Your task to perform on an android device: Open Yahoo.com Image 0: 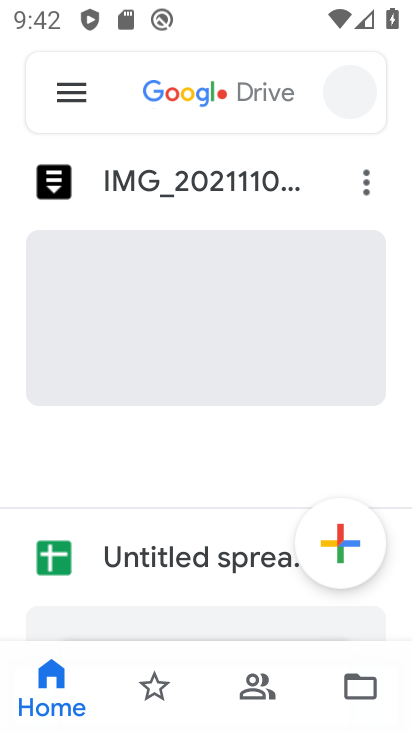
Step 0: press home button
Your task to perform on an android device: Open Yahoo.com Image 1: 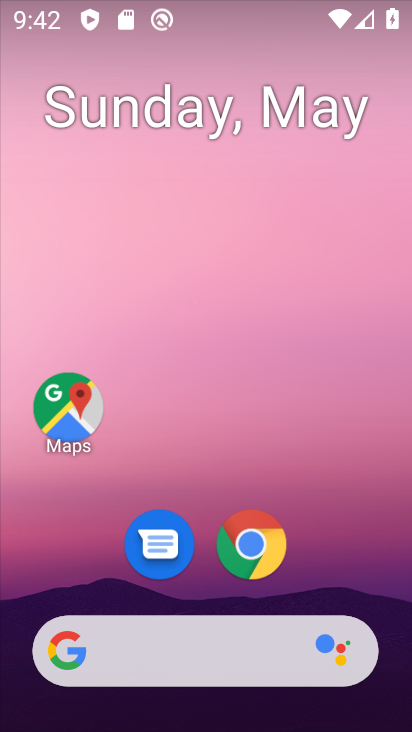
Step 1: click (262, 555)
Your task to perform on an android device: Open Yahoo.com Image 2: 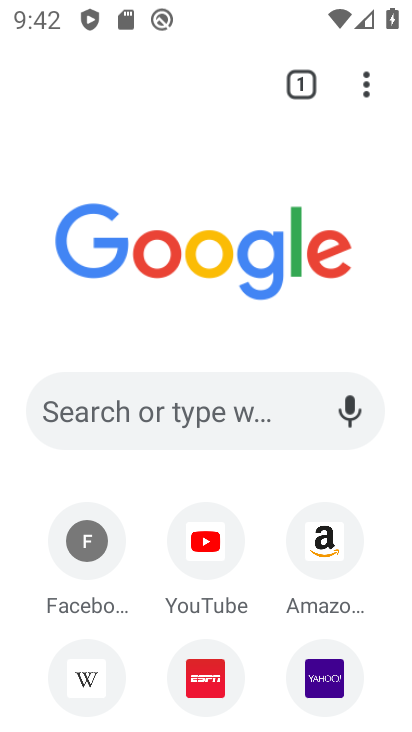
Step 2: click (247, 408)
Your task to perform on an android device: Open Yahoo.com Image 3: 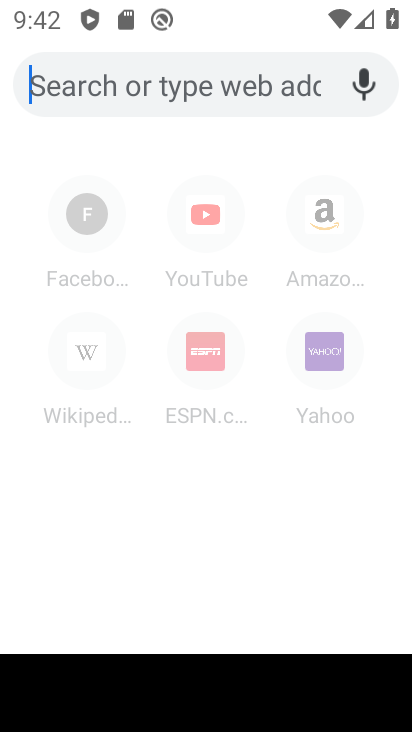
Step 3: type "Yahoo.com"
Your task to perform on an android device: Open Yahoo.com Image 4: 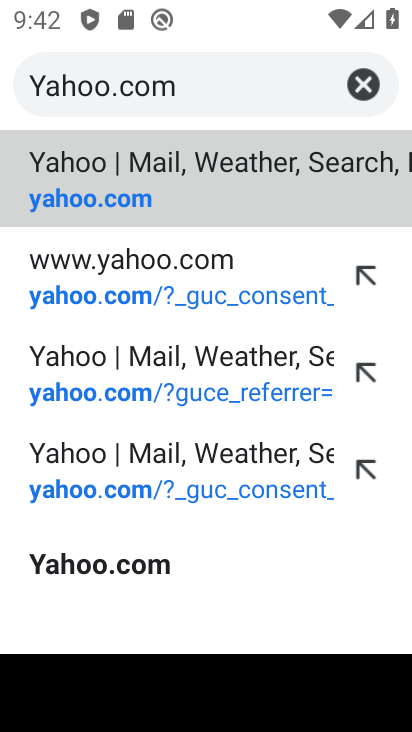
Step 4: click (28, 169)
Your task to perform on an android device: Open Yahoo.com Image 5: 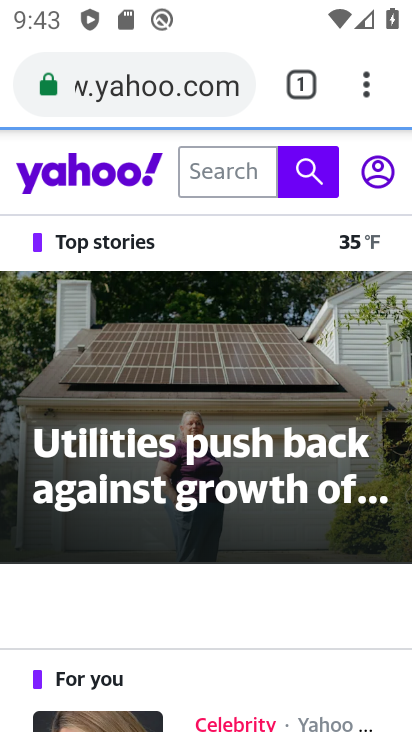
Step 5: task complete